Your task to perform on an android device: turn on the 12-hour format for clock Image 0: 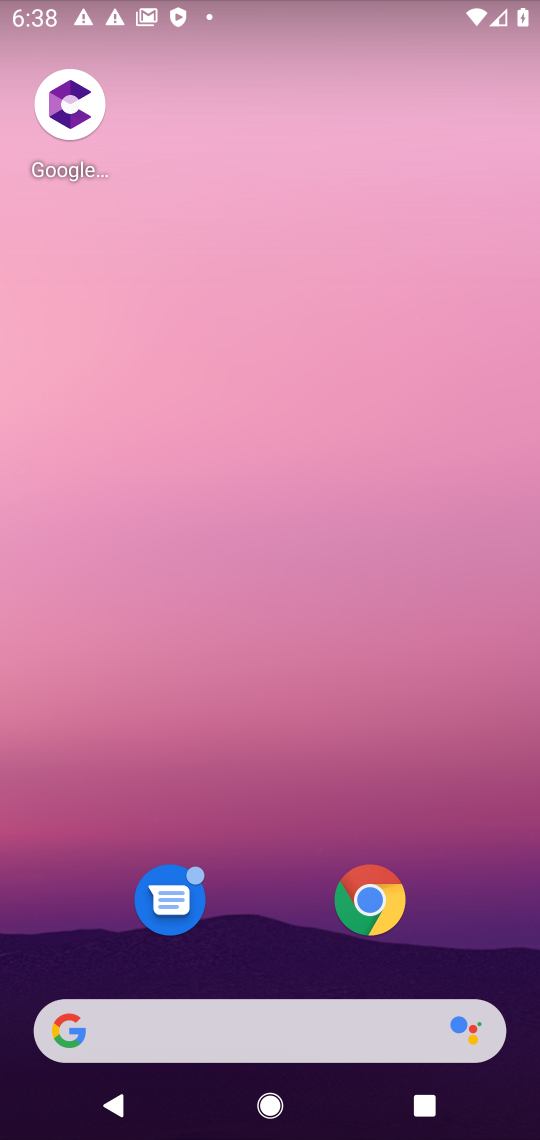
Step 0: press home button
Your task to perform on an android device: turn on the 12-hour format for clock Image 1: 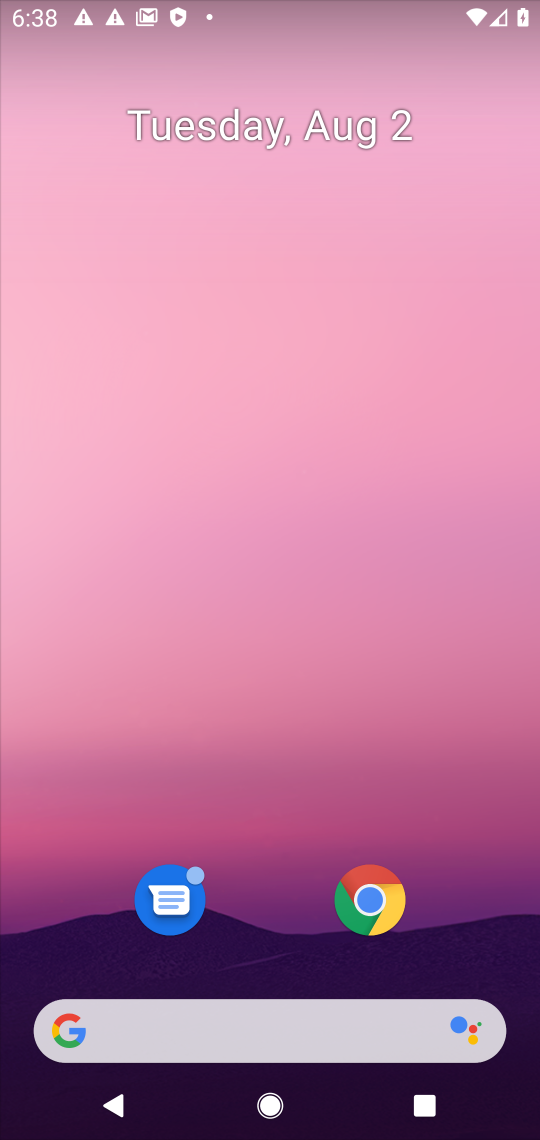
Step 1: drag from (260, 925) to (145, 96)
Your task to perform on an android device: turn on the 12-hour format for clock Image 2: 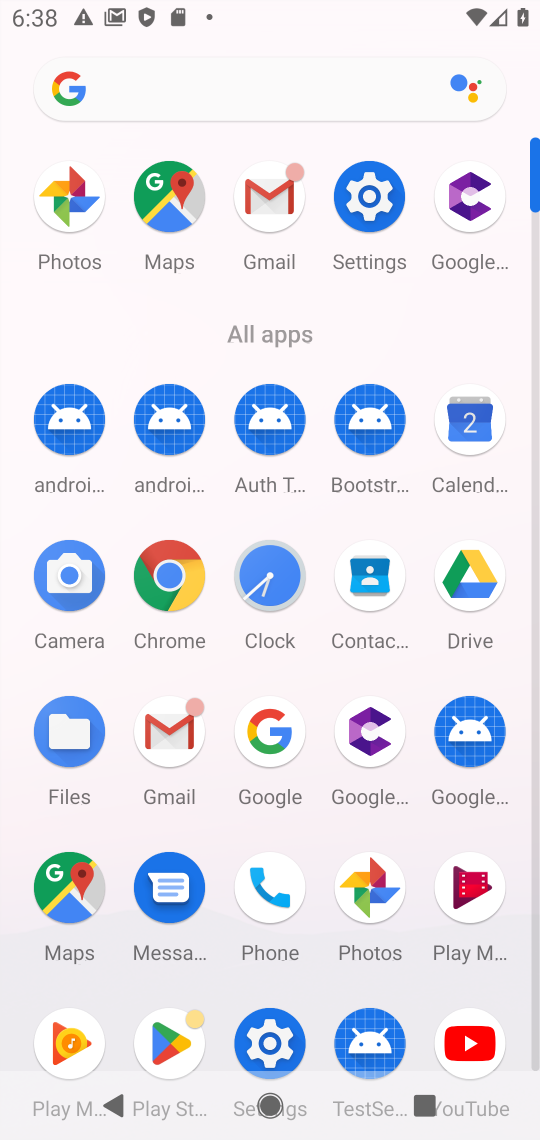
Step 2: click (266, 578)
Your task to perform on an android device: turn on the 12-hour format for clock Image 3: 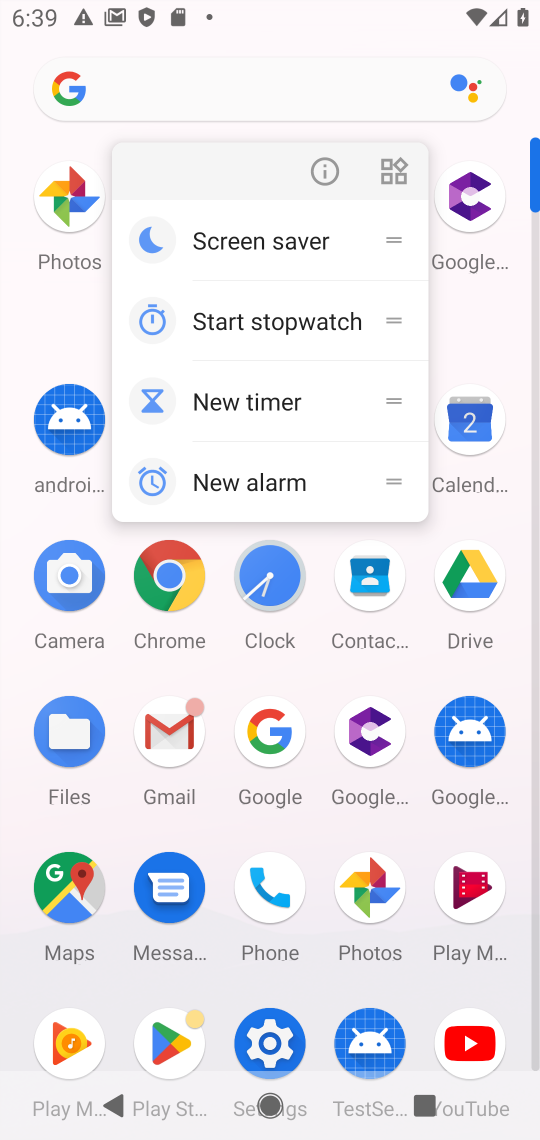
Step 3: click (265, 584)
Your task to perform on an android device: turn on the 12-hour format for clock Image 4: 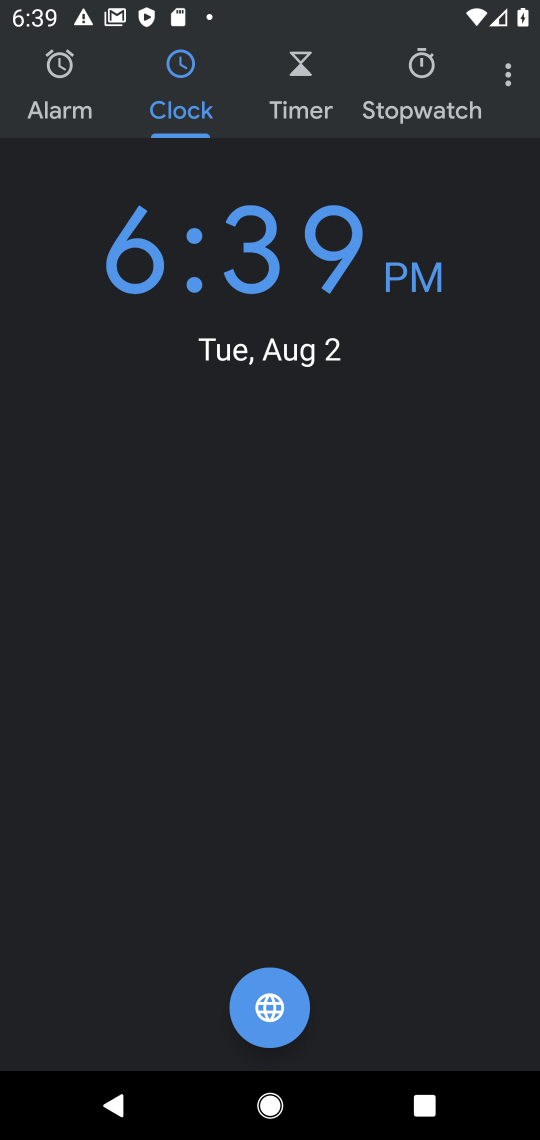
Step 4: click (512, 77)
Your task to perform on an android device: turn on the 12-hour format for clock Image 5: 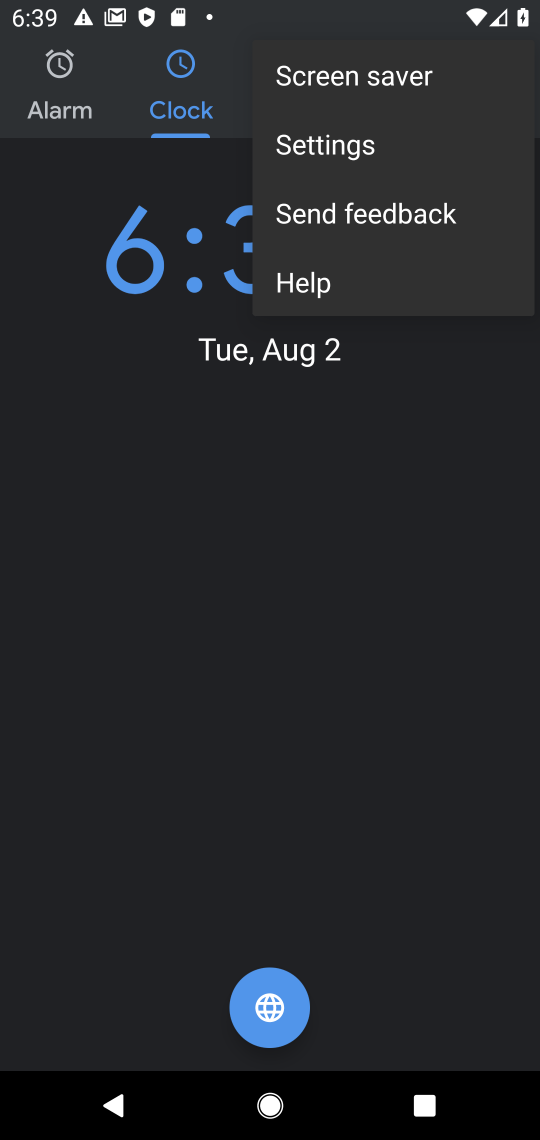
Step 5: click (341, 151)
Your task to perform on an android device: turn on the 12-hour format for clock Image 6: 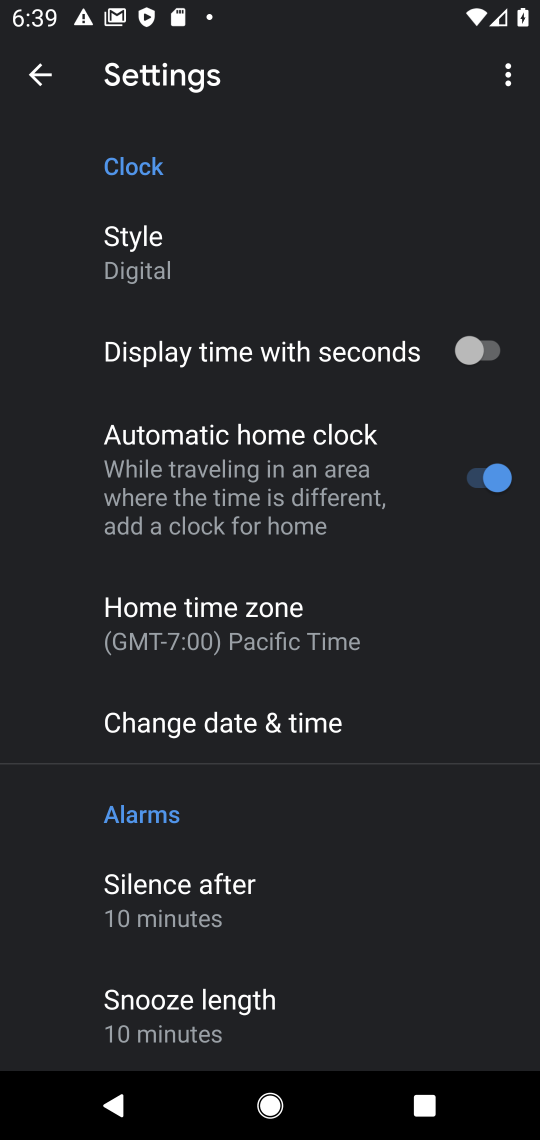
Step 6: click (242, 729)
Your task to perform on an android device: turn on the 12-hour format for clock Image 7: 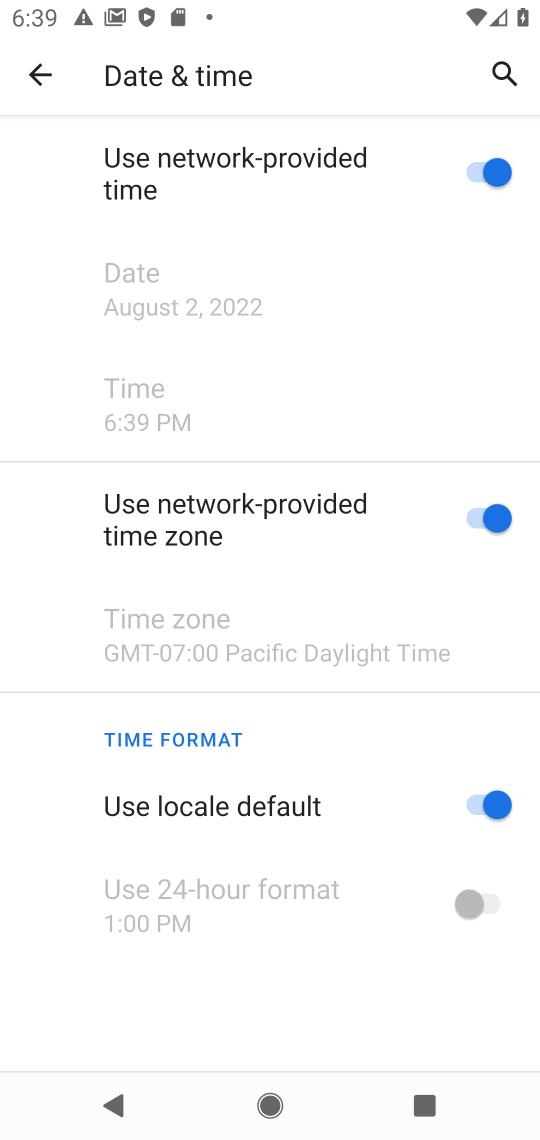
Step 7: task complete